Your task to perform on an android device: turn off improve location accuracy Image 0: 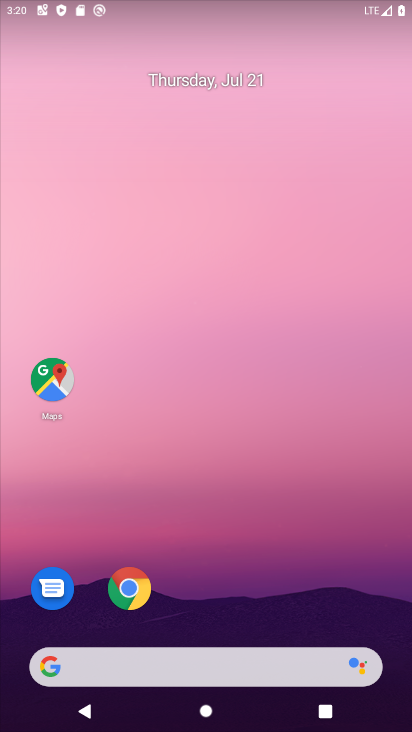
Step 0: drag from (277, 595) to (293, 120)
Your task to perform on an android device: turn off improve location accuracy Image 1: 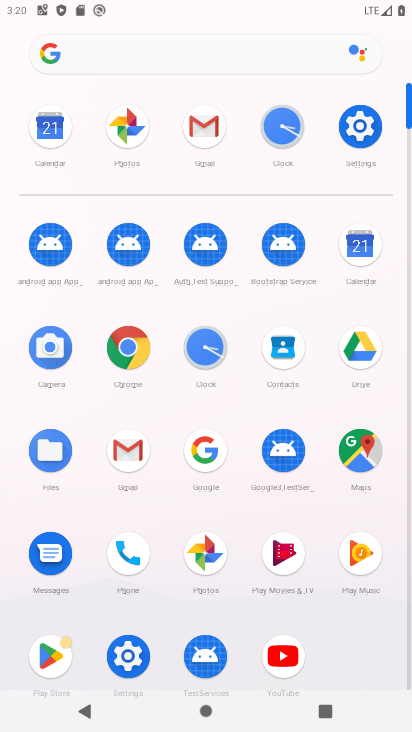
Step 1: click (366, 111)
Your task to perform on an android device: turn off improve location accuracy Image 2: 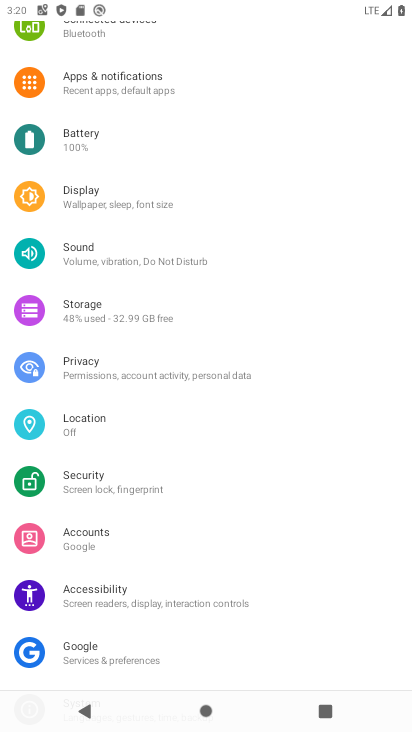
Step 2: click (91, 431)
Your task to perform on an android device: turn off improve location accuracy Image 3: 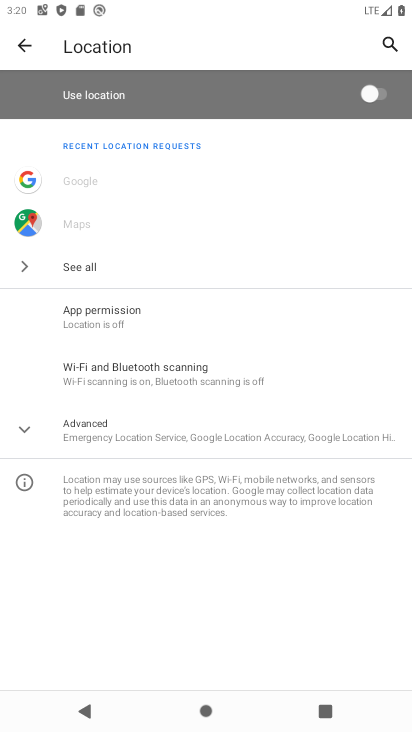
Step 3: click (198, 424)
Your task to perform on an android device: turn off improve location accuracy Image 4: 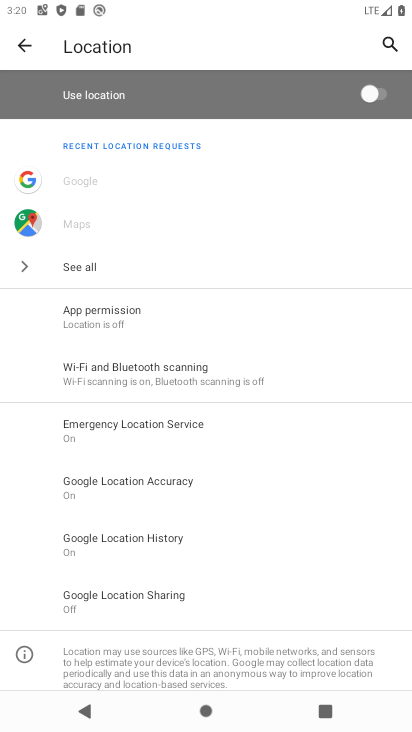
Step 4: click (161, 475)
Your task to perform on an android device: turn off improve location accuracy Image 5: 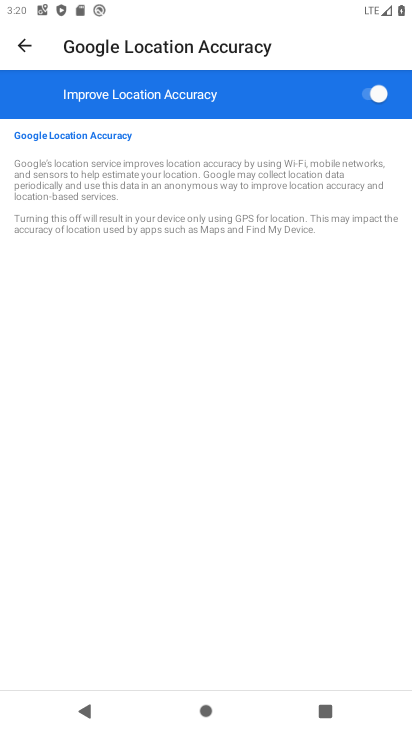
Step 5: click (362, 82)
Your task to perform on an android device: turn off improve location accuracy Image 6: 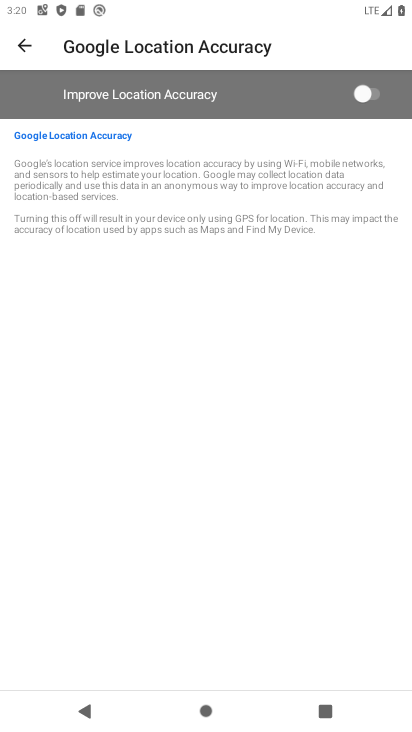
Step 6: task complete